Your task to perform on an android device: check storage Image 0: 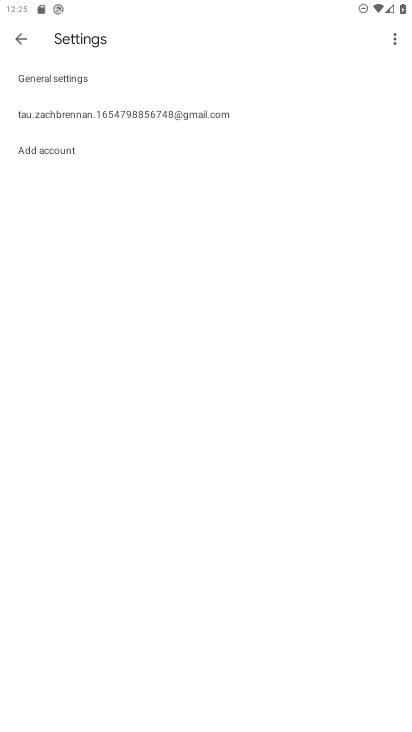
Step 0: drag from (237, 11) to (141, 708)
Your task to perform on an android device: check storage Image 1: 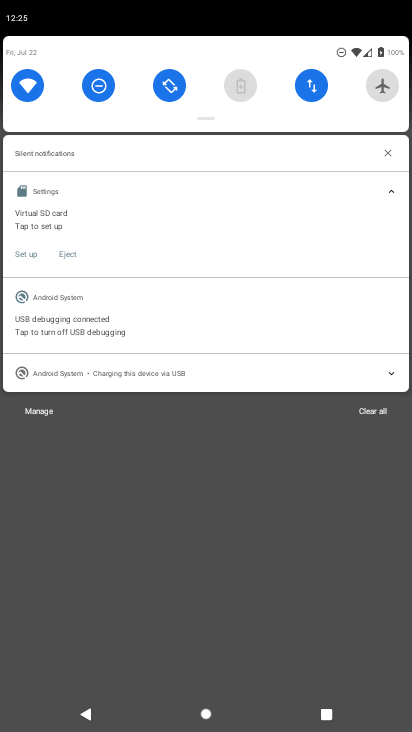
Step 1: drag from (266, 71) to (299, 678)
Your task to perform on an android device: check storage Image 2: 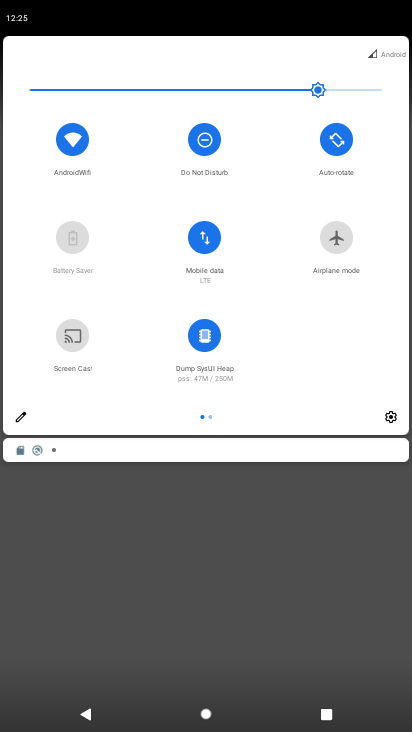
Step 2: click (393, 410)
Your task to perform on an android device: check storage Image 3: 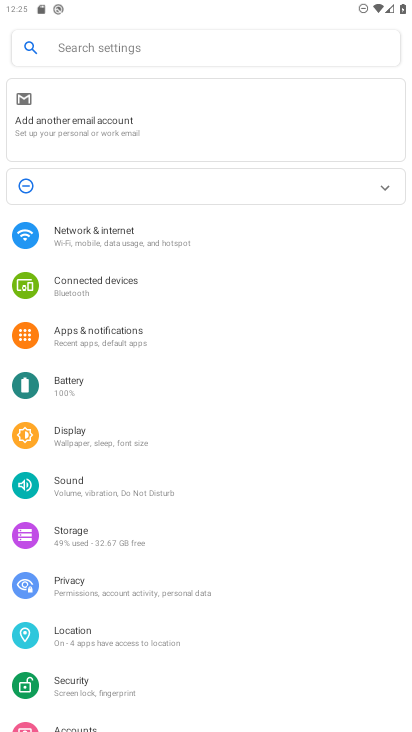
Step 3: click (81, 524)
Your task to perform on an android device: check storage Image 4: 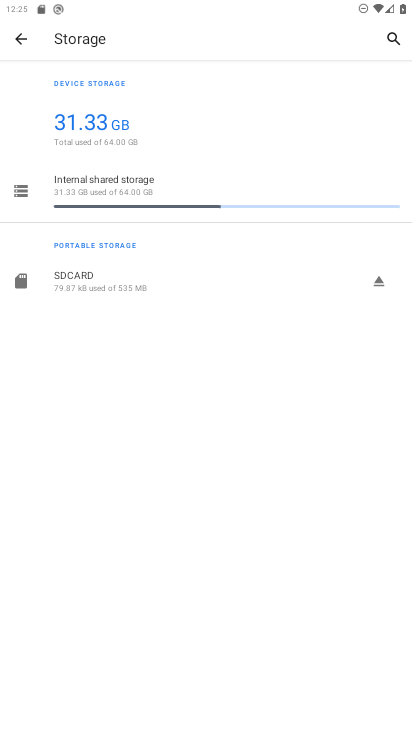
Step 4: task complete